Your task to perform on an android device: Turn on the flashlight Image 0: 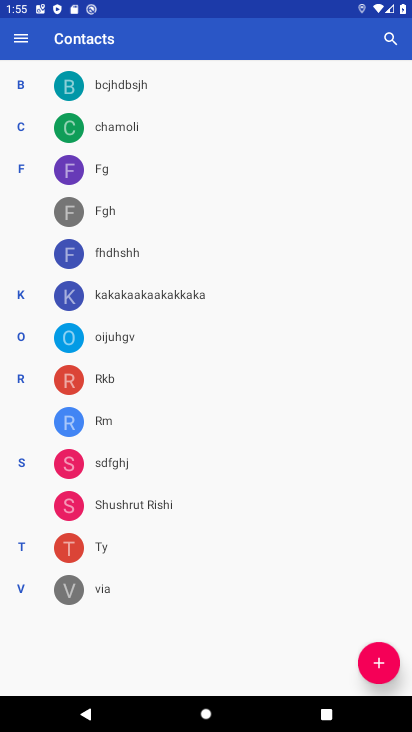
Step 0: press home button
Your task to perform on an android device: Turn on the flashlight Image 1: 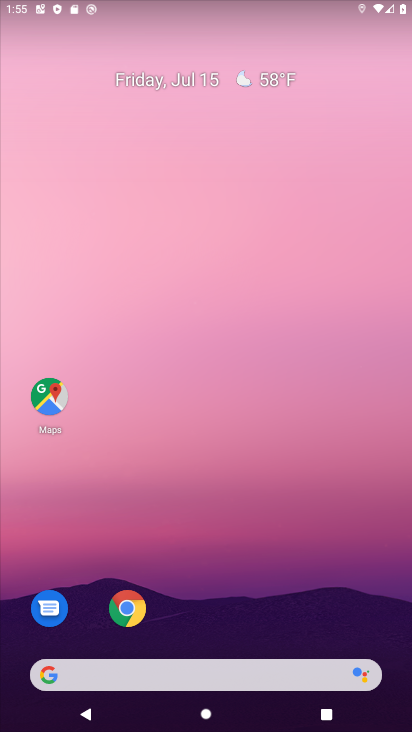
Step 1: click (105, 606)
Your task to perform on an android device: Turn on the flashlight Image 2: 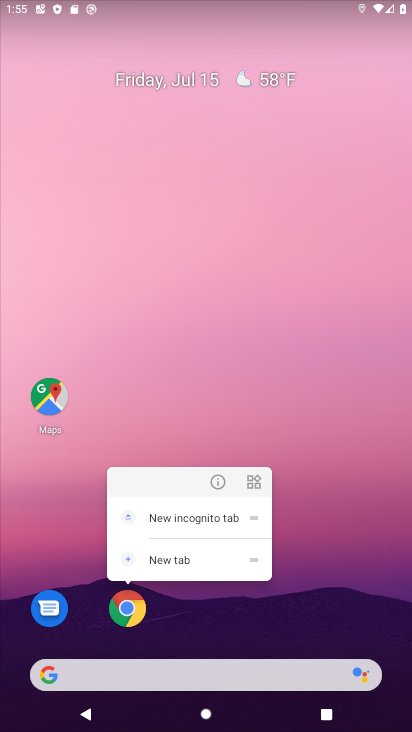
Step 2: click (219, 477)
Your task to perform on an android device: Turn on the flashlight Image 3: 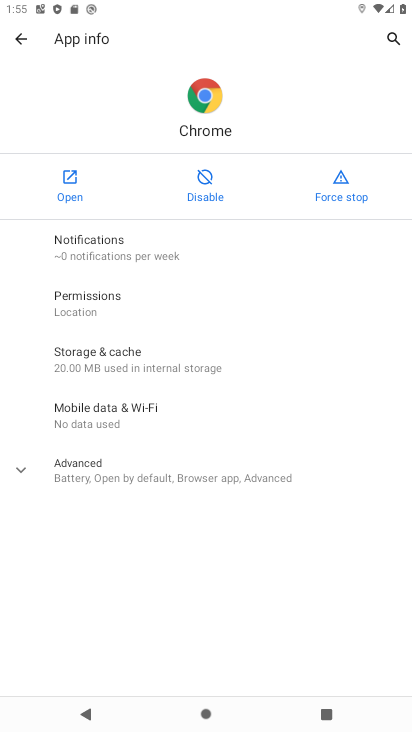
Step 3: task complete